Your task to perform on an android device: open chrome privacy settings Image 0: 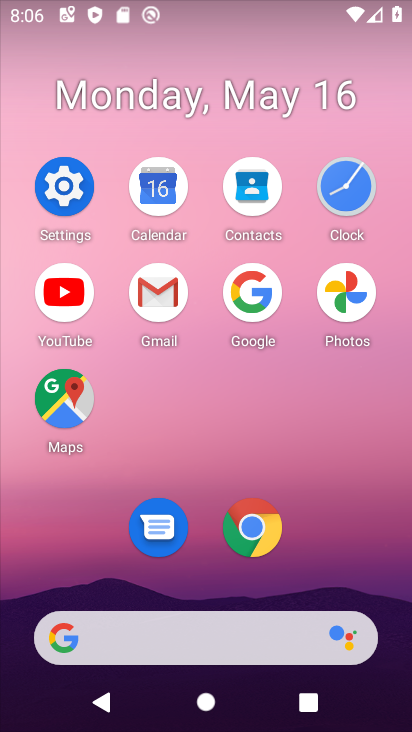
Step 0: click (259, 531)
Your task to perform on an android device: open chrome privacy settings Image 1: 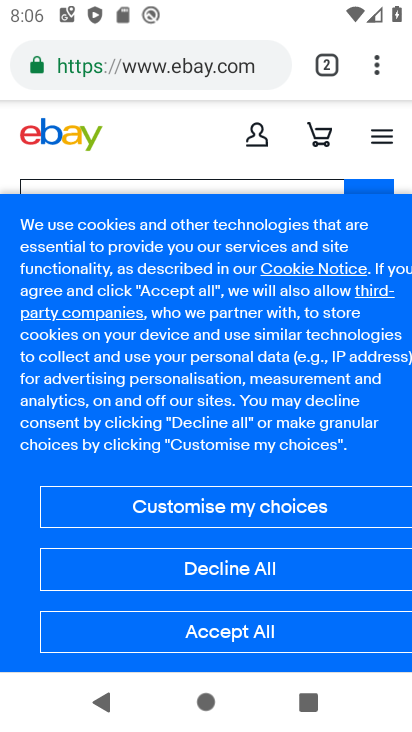
Step 1: click (384, 65)
Your task to perform on an android device: open chrome privacy settings Image 2: 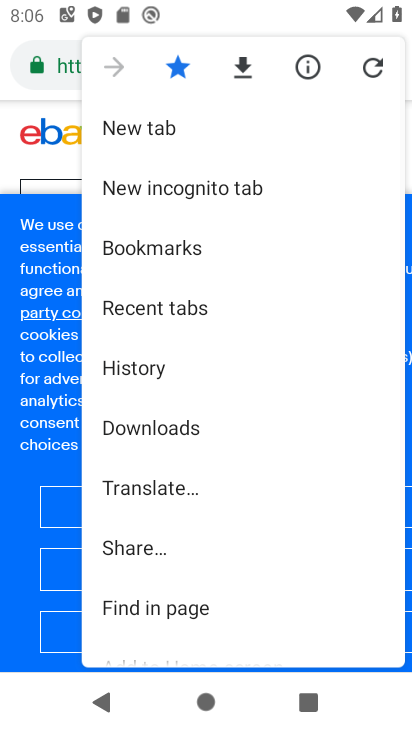
Step 2: drag from (164, 511) to (178, 94)
Your task to perform on an android device: open chrome privacy settings Image 3: 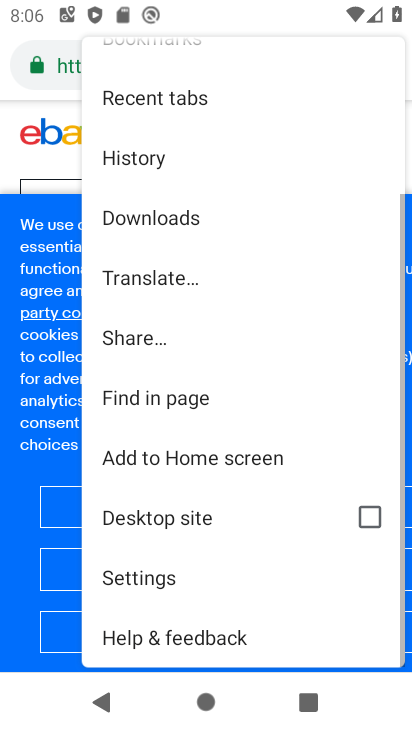
Step 3: click (148, 581)
Your task to perform on an android device: open chrome privacy settings Image 4: 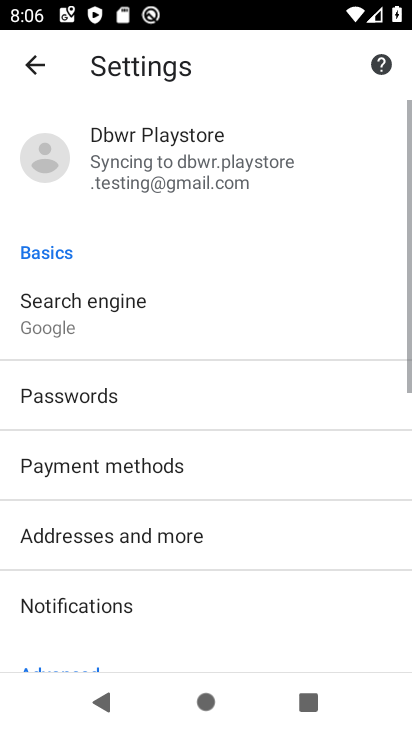
Step 4: drag from (166, 506) to (205, 97)
Your task to perform on an android device: open chrome privacy settings Image 5: 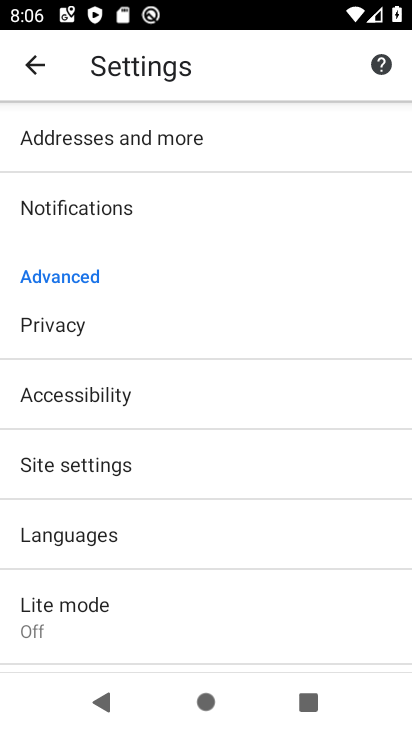
Step 5: click (166, 334)
Your task to perform on an android device: open chrome privacy settings Image 6: 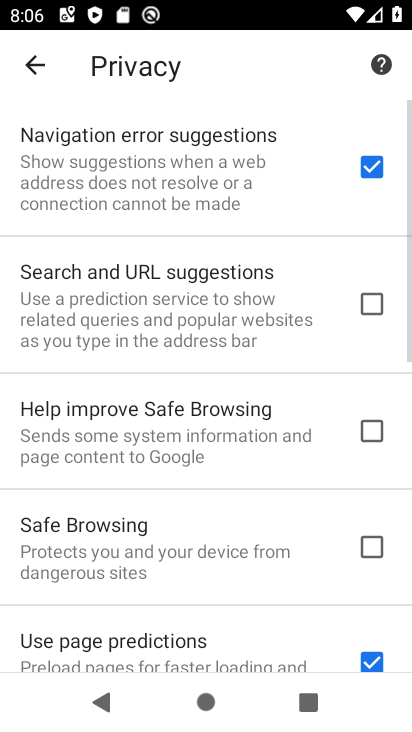
Step 6: task complete